Your task to perform on an android device: open a new tab in the chrome app Image 0: 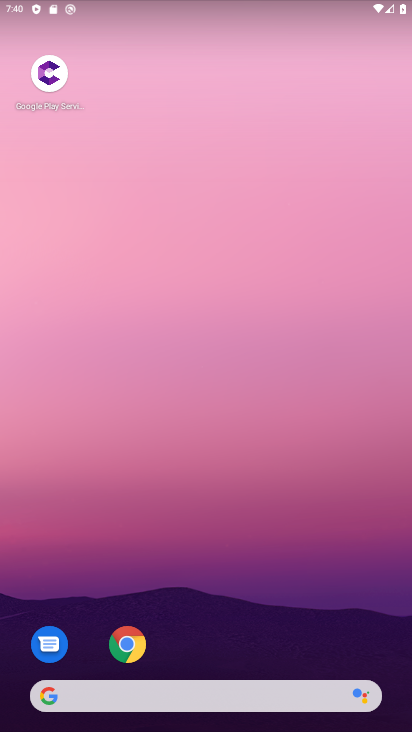
Step 0: click (129, 648)
Your task to perform on an android device: open a new tab in the chrome app Image 1: 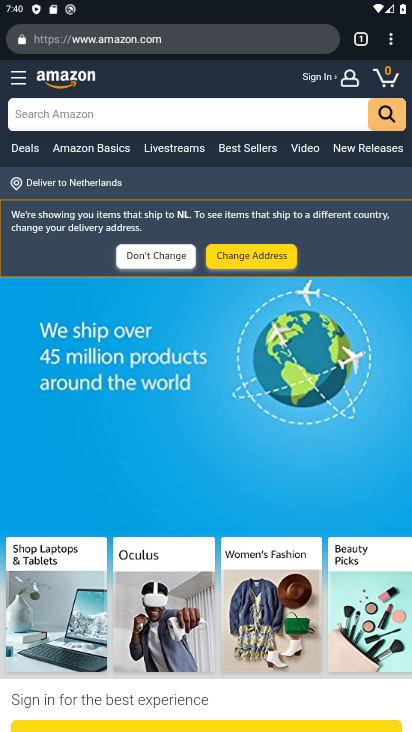
Step 1: click (390, 38)
Your task to perform on an android device: open a new tab in the chrome app Image 2: 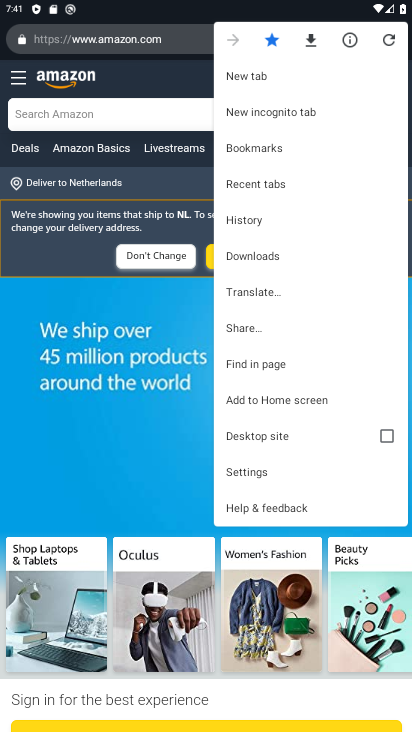
Step 2: click (291, 85)
Your task to perform on an android device: open a new tab in the chrome app Image 3: 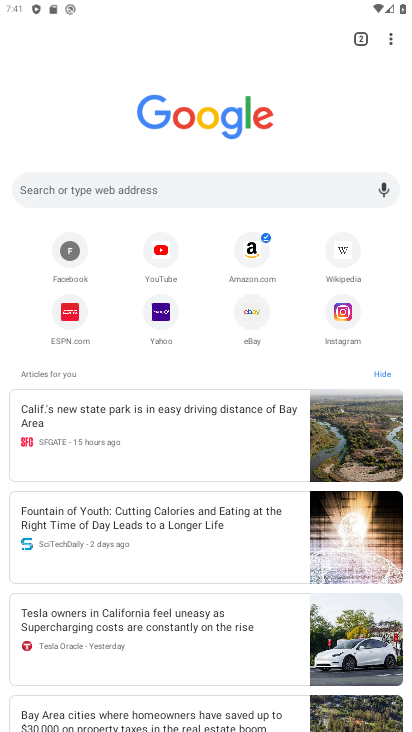
Step 3: task complete